Your task to perform on an android device: Add "dell xps" to the cart on ebay.com, then select checkout. Image 0: 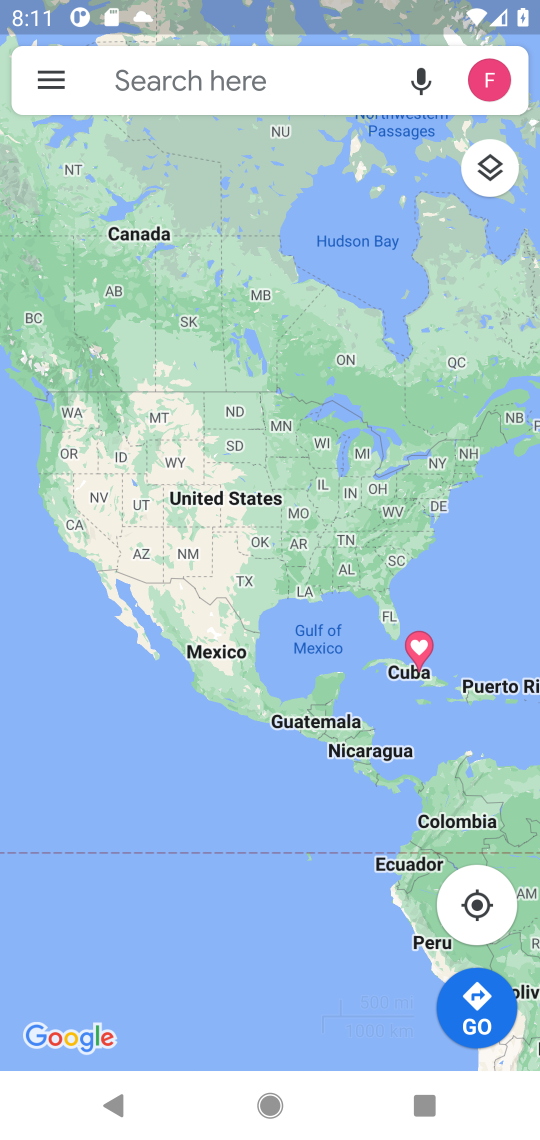
Step 0: press home button
Your task to perform on an android device: Add "dell xps" to the cart on ebay.com, then select checkout. Image 1: 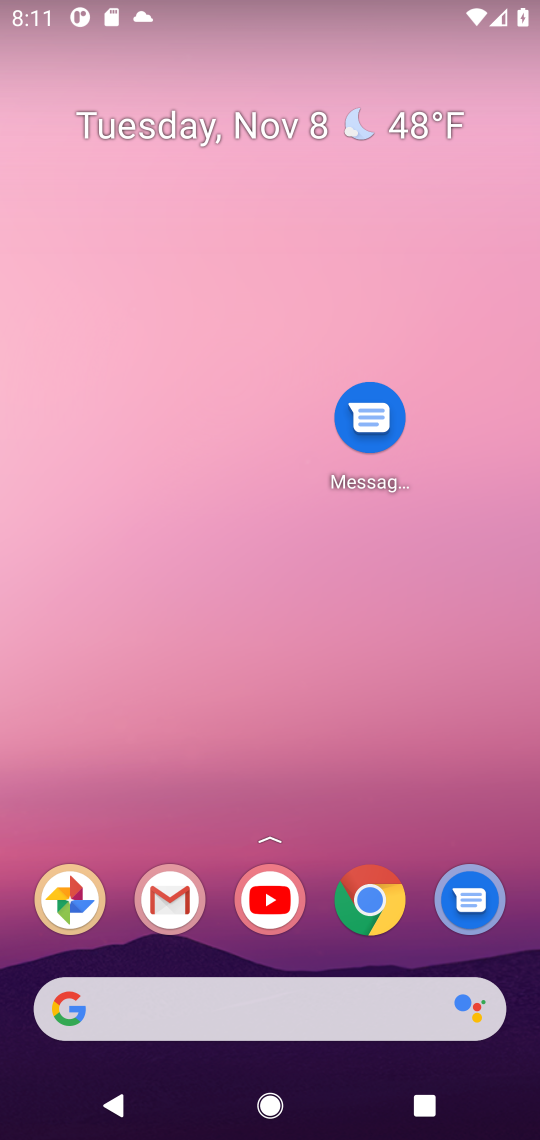
Step 1: drag from (216, 1004) to (200, 356)
Your task to perform on an android device: Add "dell xps" to the cart on ebay.com, then select checkout. Image 2: 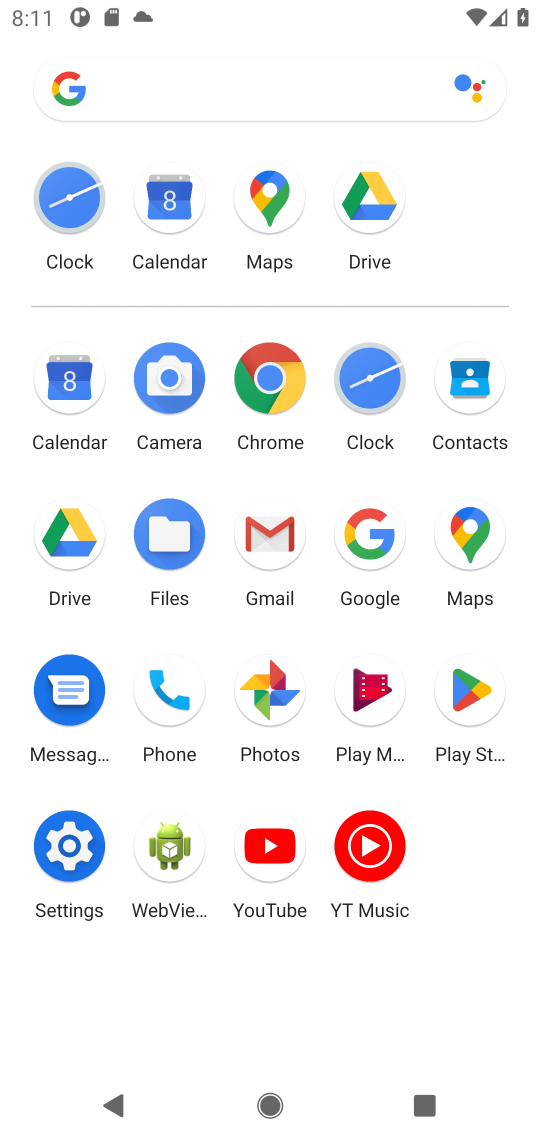
Step 2: click (369, 540)
Your task to perform on an android device: Add "dell xps" to the cart on ebay.com, then select checkout. Image 3: 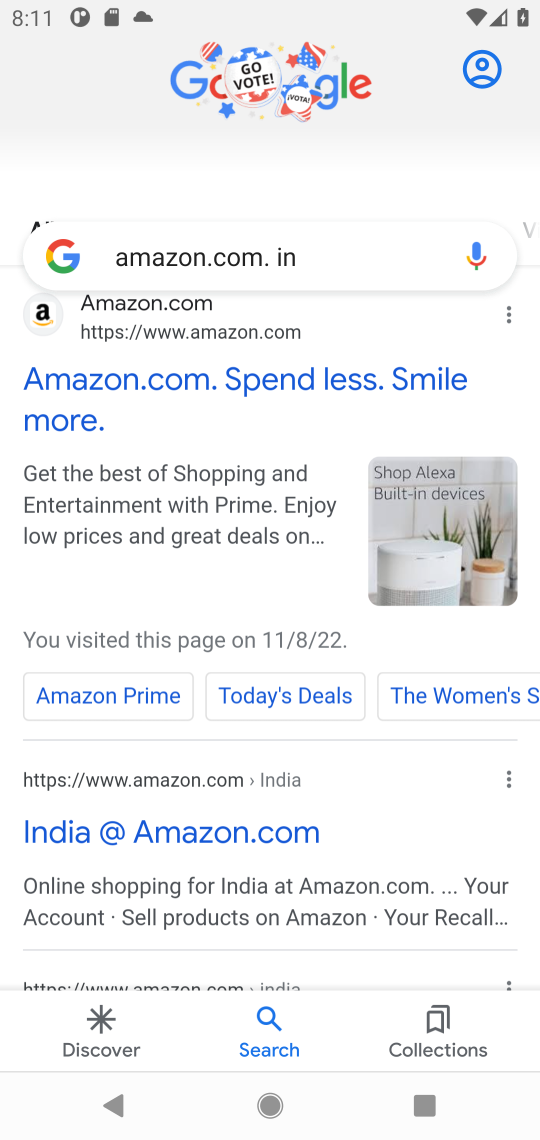
Step 3: click (309, 249)
Your task to perform on an android device: Add "dell xps" to the cart on ebay.com, then select checkout. Image 4: 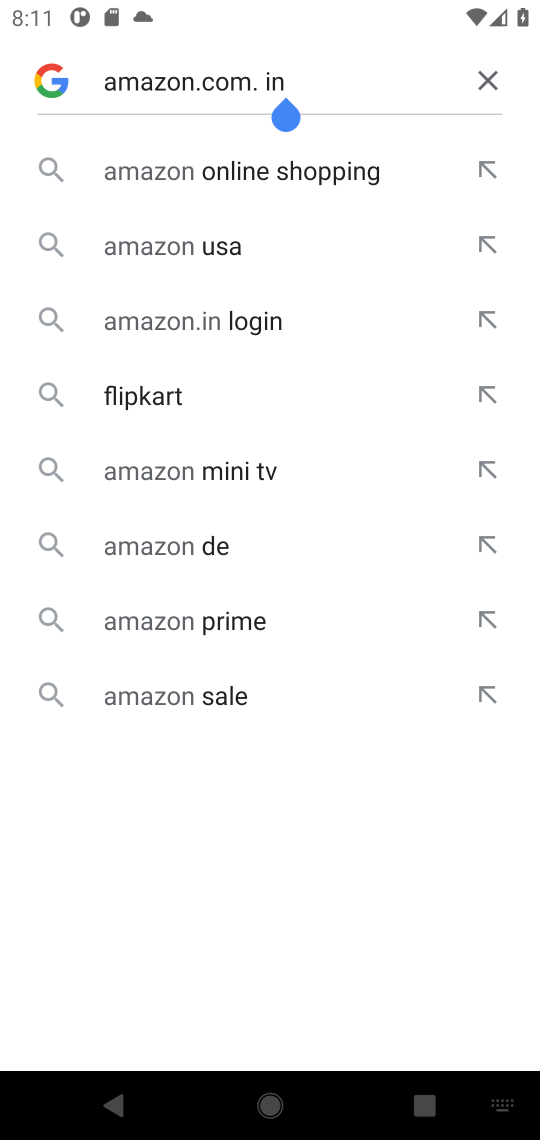
Step 4: click (497, 87)
Your task to perform on an android device: Add "dell xps" to the cart on ebay.com, then select checkout. Image 5: 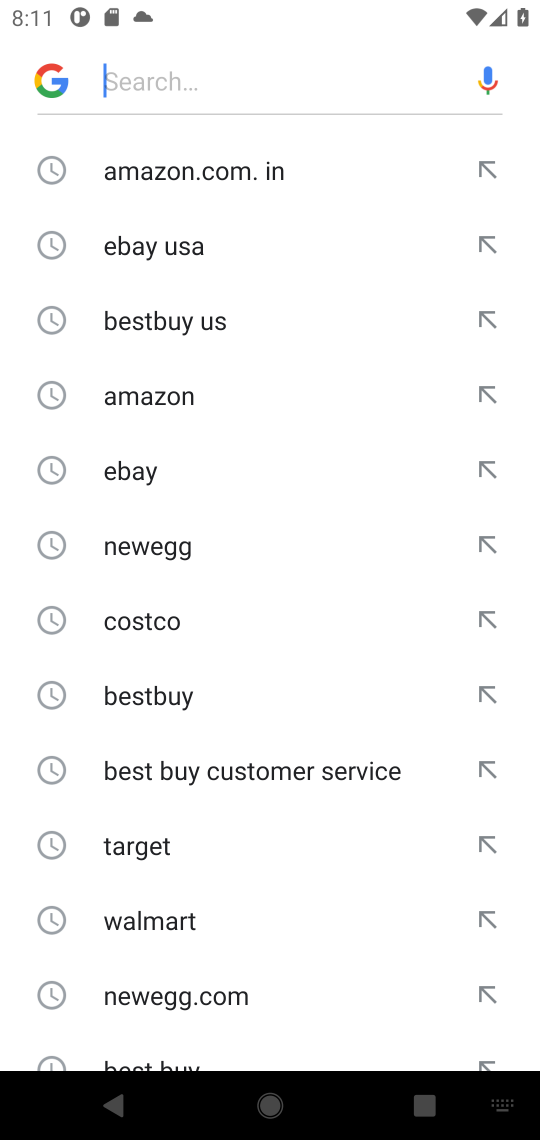
Step 5: click (305, 60)
Your task to perform on an android device: Add "dell xps" to the cart on ebay.com, then select checkout. Image 6: 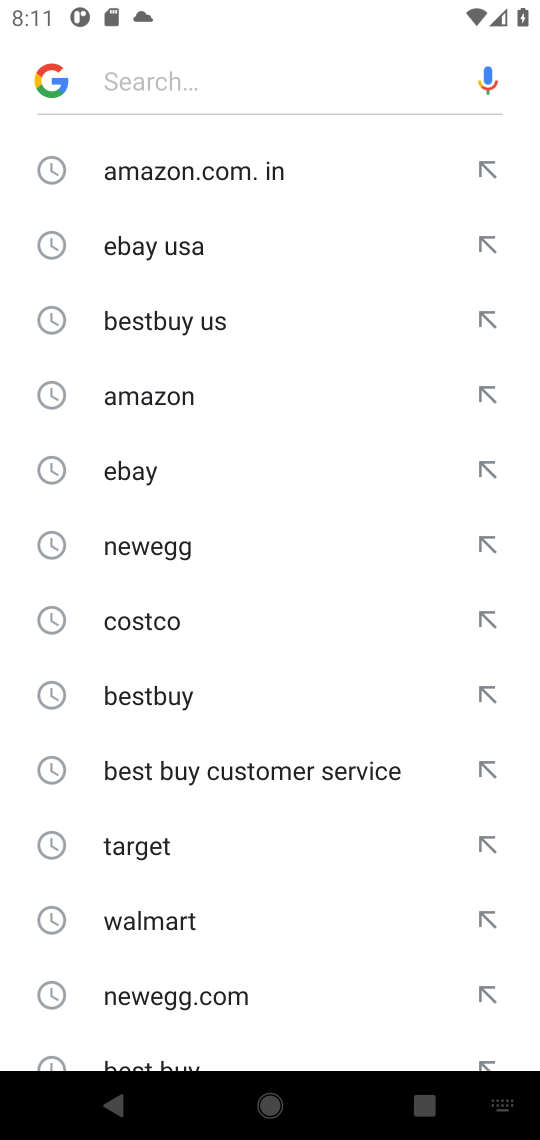
Step 6: type "ebay "
Your task to perform on an android device: Add "dell xps" to the cart on ebay.com, then select checkout. Image 7: 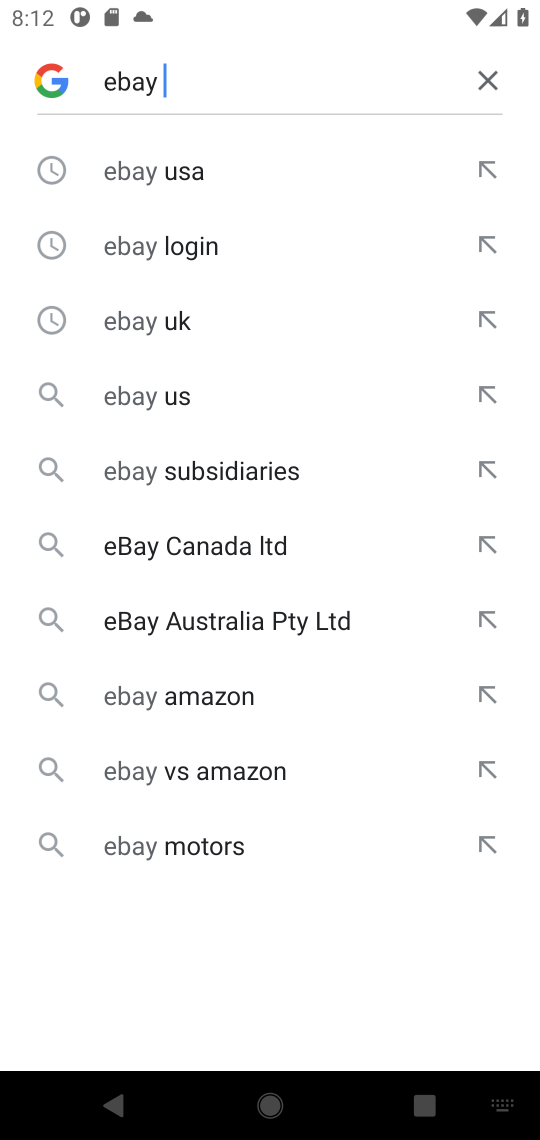
Step 7: click (137, 178)
Your task to perform on an android device: Add "dell xps" to the cart on ebay.com, then select checkout. Image 8: 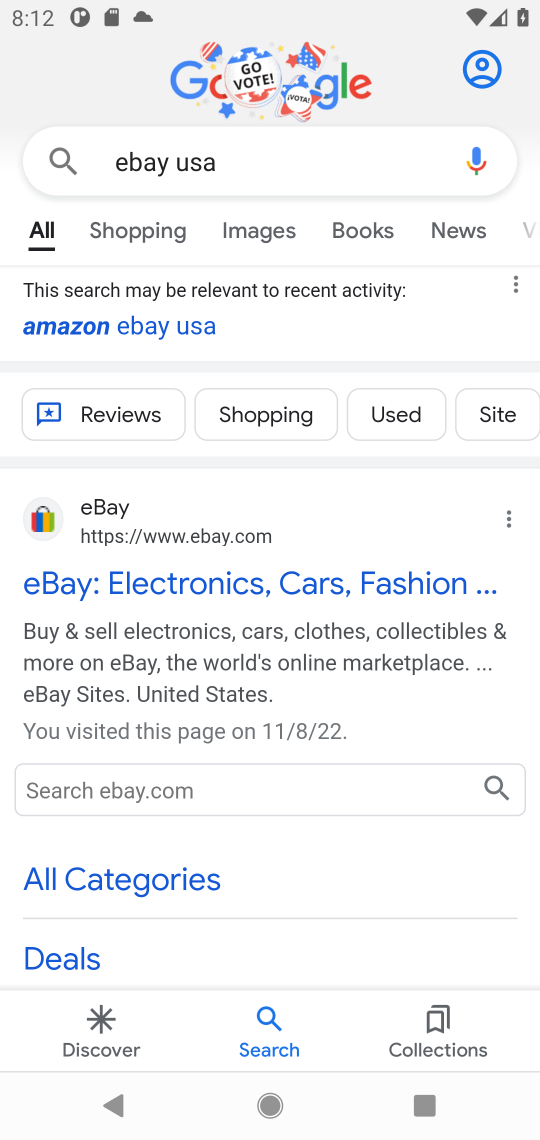
Step 8: click (34, 527)
Your task to perform on an android device: Add "dell xps" to the cart on ebay.com, then select checkout. Image 9: 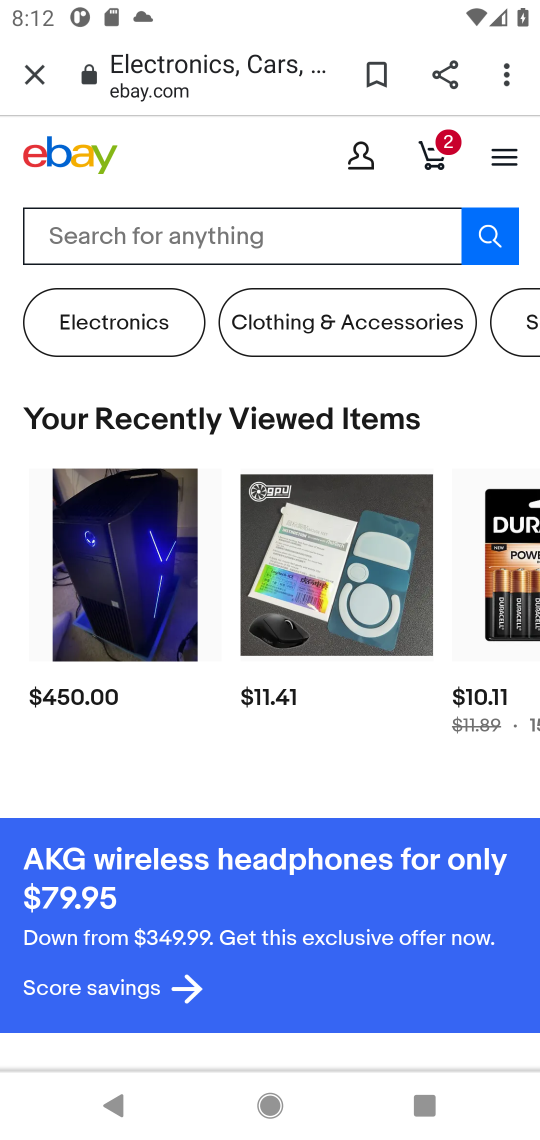
Step 9: click (243, 223)
Your task to perform on an android device: Add "dell xps" to the cart on ebay.com, then select checkout. Image 10: 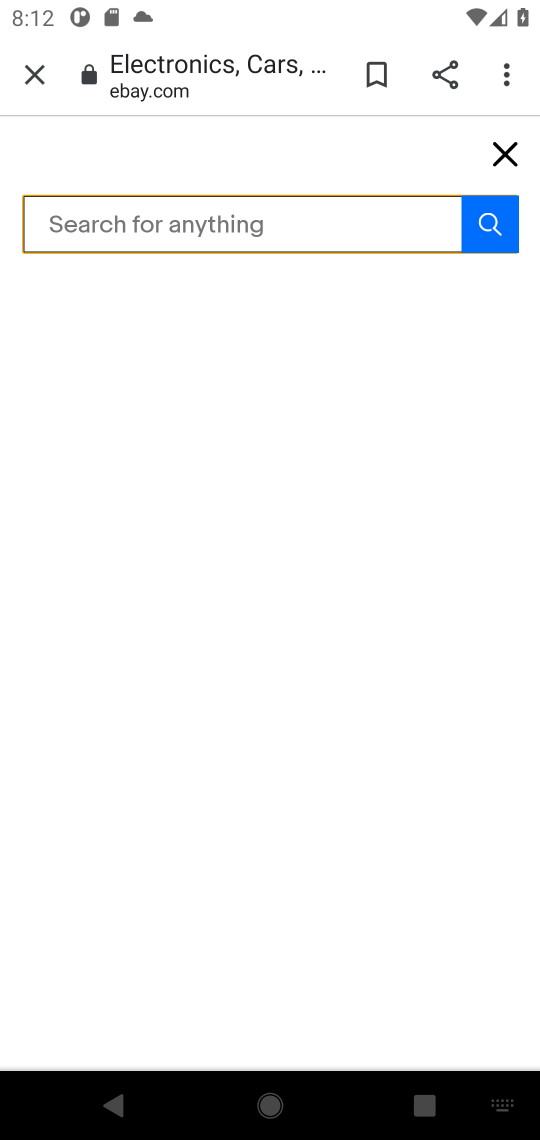
Step 10: type "dell xps "
Your task to perform on an android device: Add "dell xps" to the cart on ebay.com, then select checkout. Image 11: 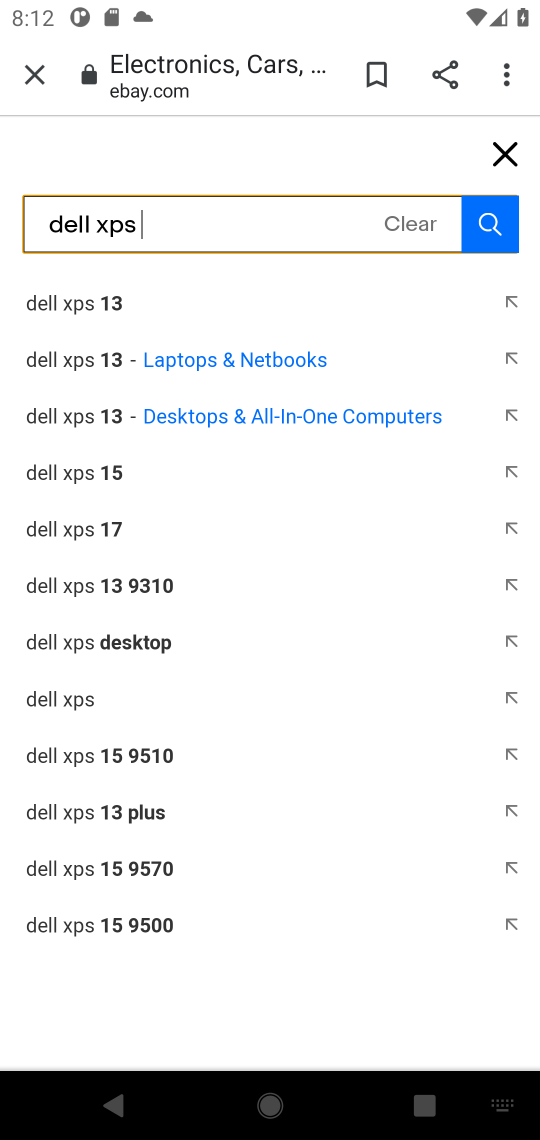
Step 11: click (96, 303)
Your task to perform on an android device: Add "dell xps" to the cart on ebay.com, then select checkout. Image 12: 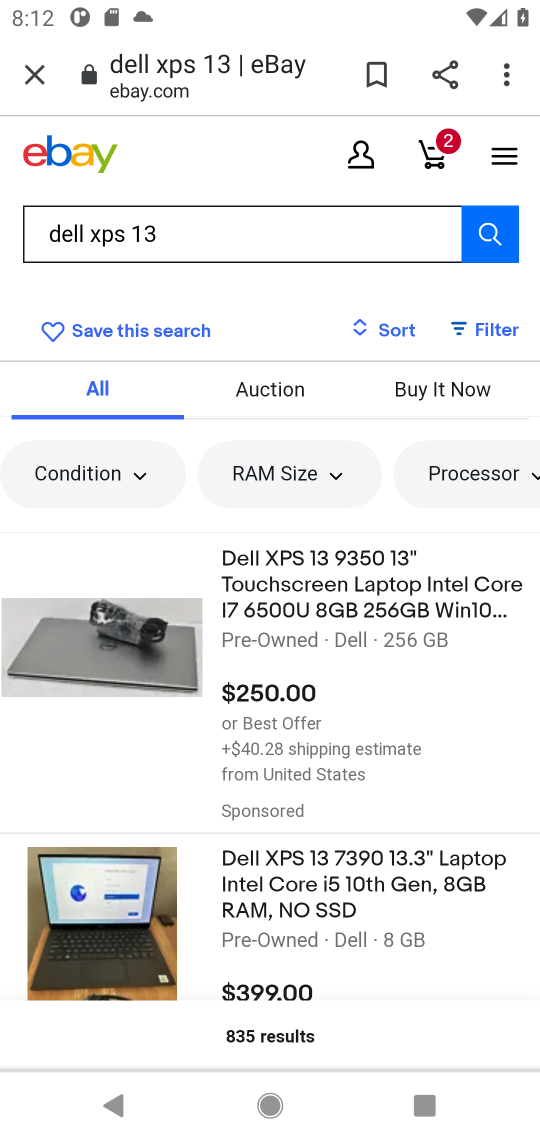
Step 12: click (309, 572)
Your task to perform on an android device: Add "dell xps" to the cart on ebay.com, then select checkout. Image 13: 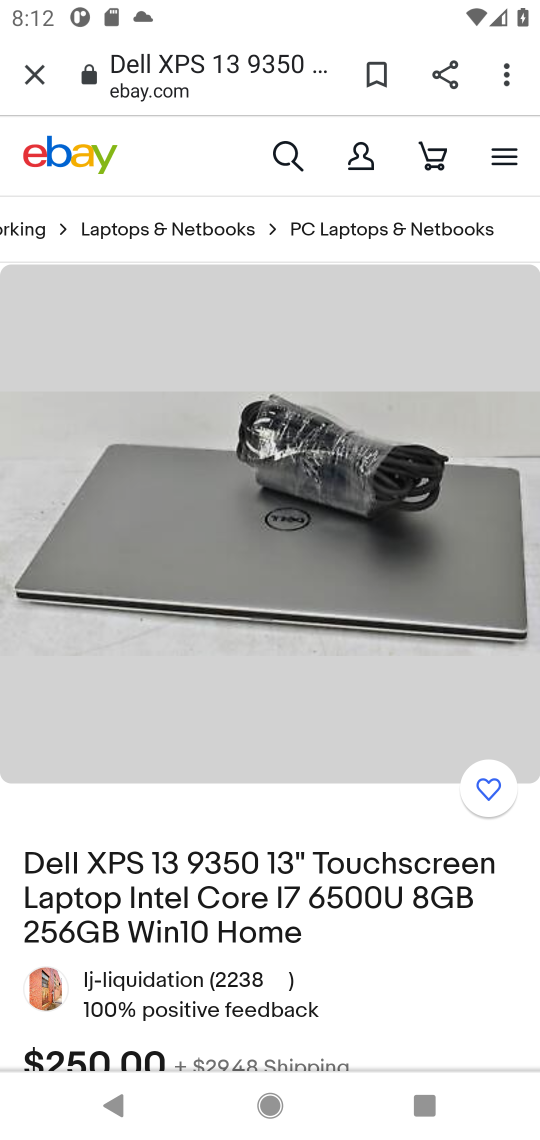
Step 13: drag from (334, 1002) to (367, 345)
Your task to perform on an android device: Add "dell xps" to the cart on ebay.com, then select checkout. Image 14: 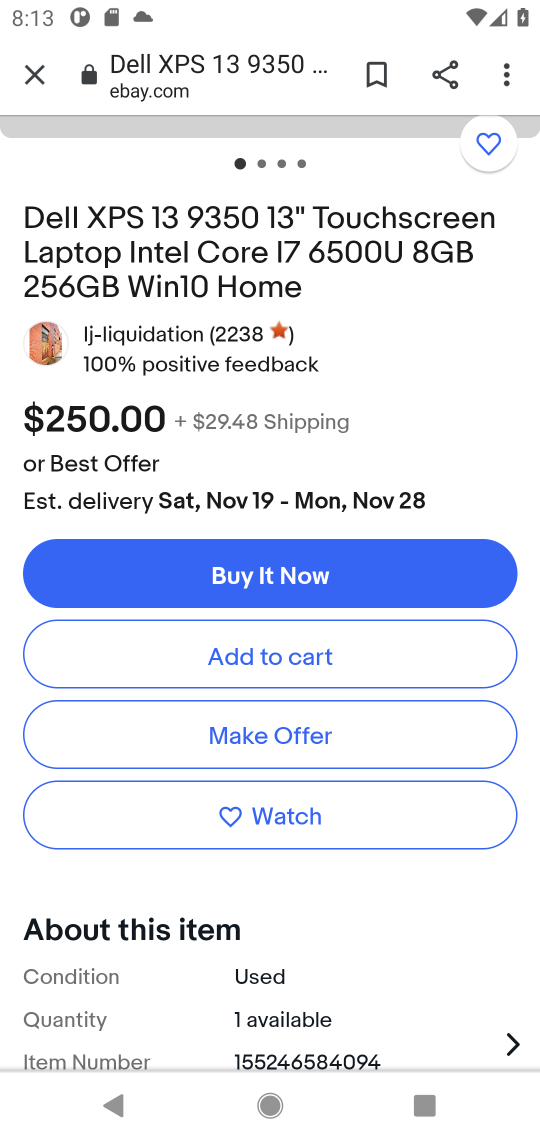
Step 14: click (285, 638)
Your task to perform on an android device: Add "dell xps" to the cart on ebay.com, then select checkout. Image 15: 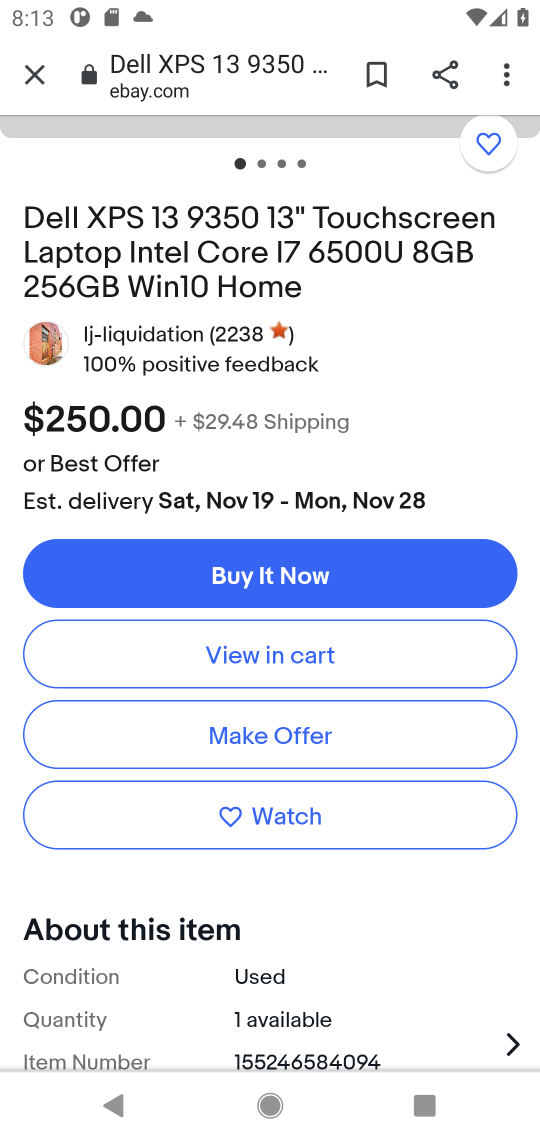
Step 15: task complete